Your task to perform on an android device: What's the weather today? Image 0: 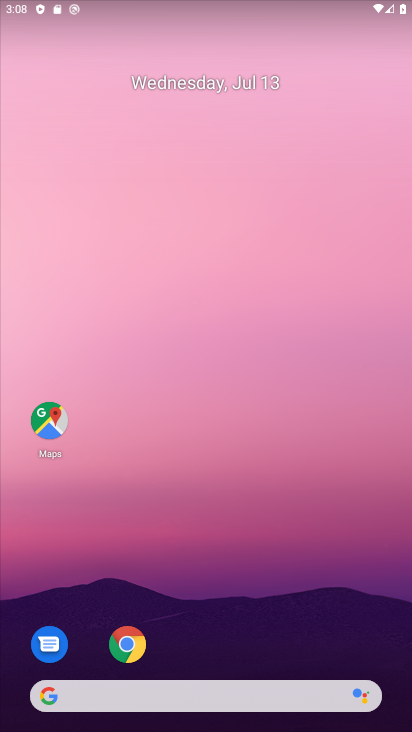
Step 0: drag from (205, 693) to (253, 191)
Your task to perform on an android device: What's the weather today? Image 1: 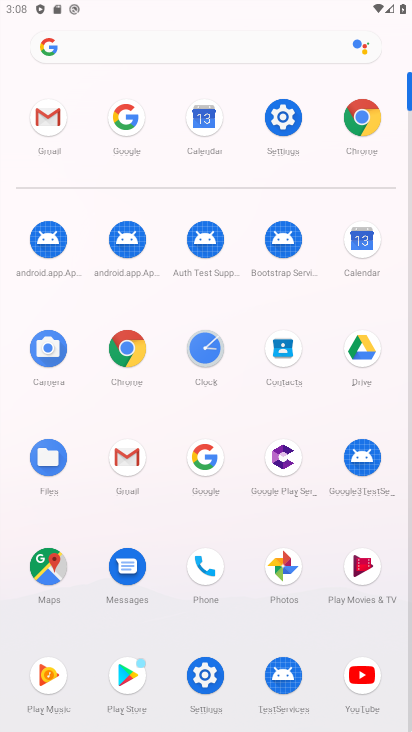
Step 1: click (123, 120)
Your task to perform on an android device: What's the weather today? Image 2: 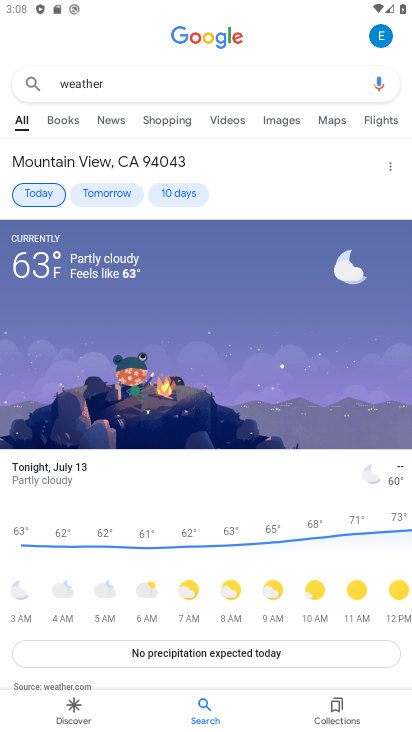
Step 2: click (49, 199)
Your task to perform on an android device: What's the weather today? Image 3: 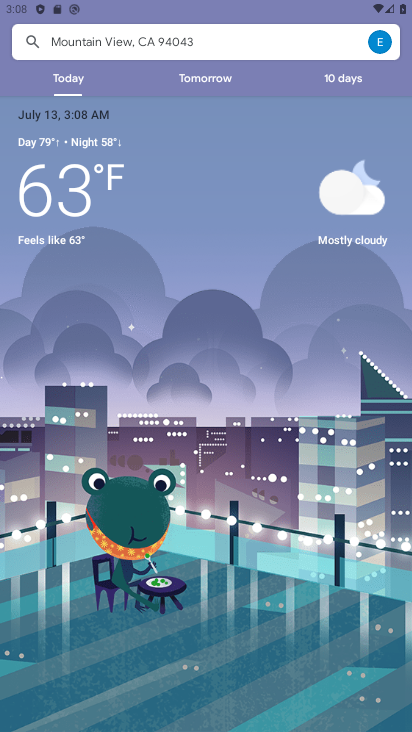
Step 3: task complete